Your task to perform on an android device: Open privacy settings Image 0: 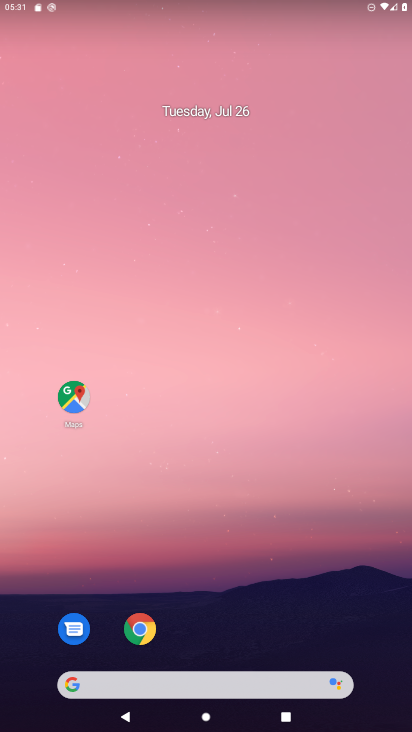
Step 0: click (143, 627)
Your task to perform on an android device: Open privacy settings Image 1: 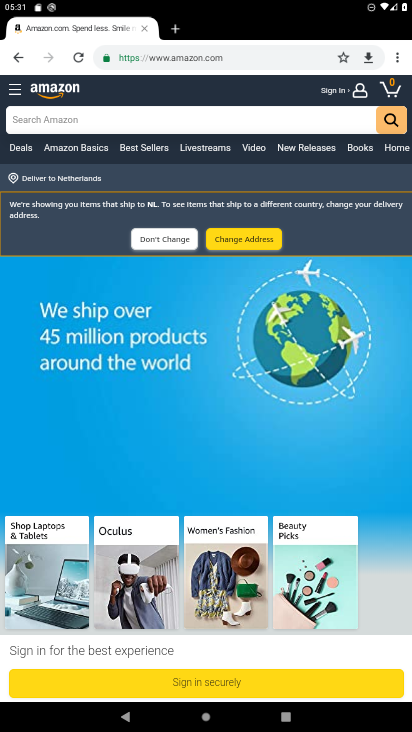
Step 1: press home button
Your task to perform on an android device: Open privacy settings Image 2: 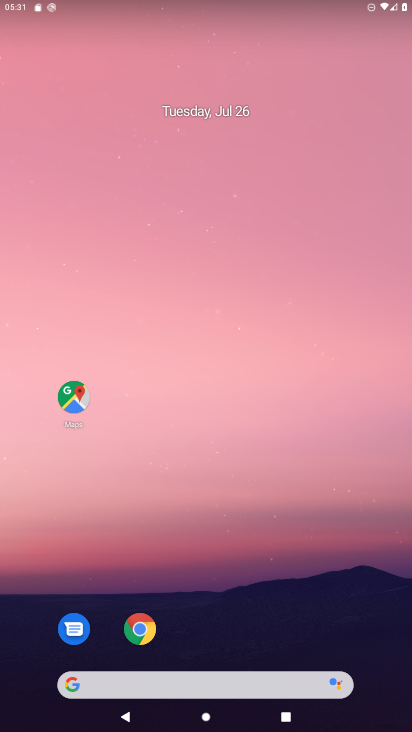
Step 2: drag from (178, 644) to (224, 5)
Your task to perform on an android device: Open privacy settings Image 3: 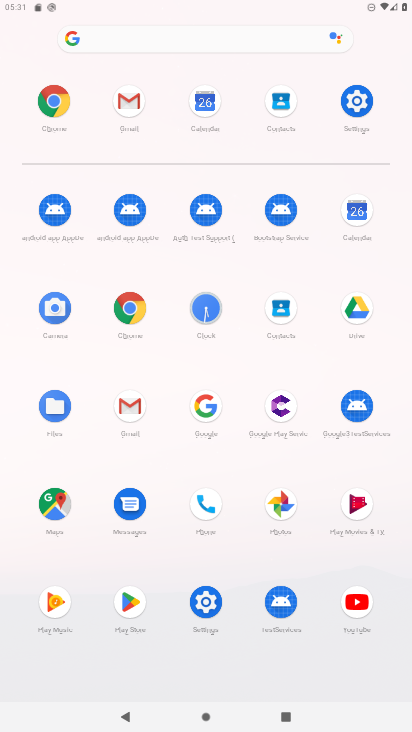
Step 3: click (353, 111)
Your task to perform on an android device: Open privacy settings Image 4: 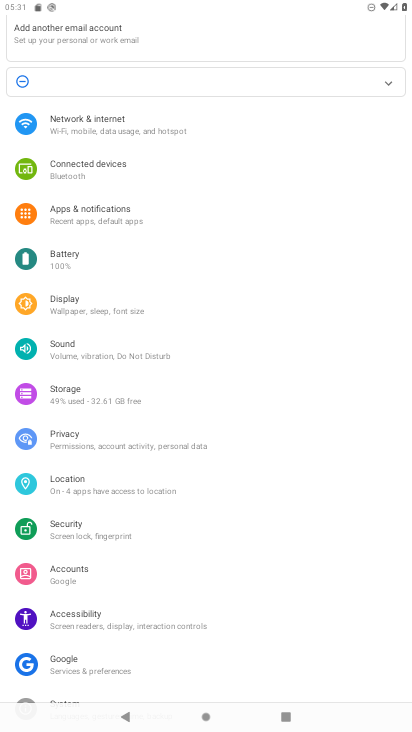
Step 4: click (64, 446)
Your task to perform on an android device: Open privacy settings Image 5: 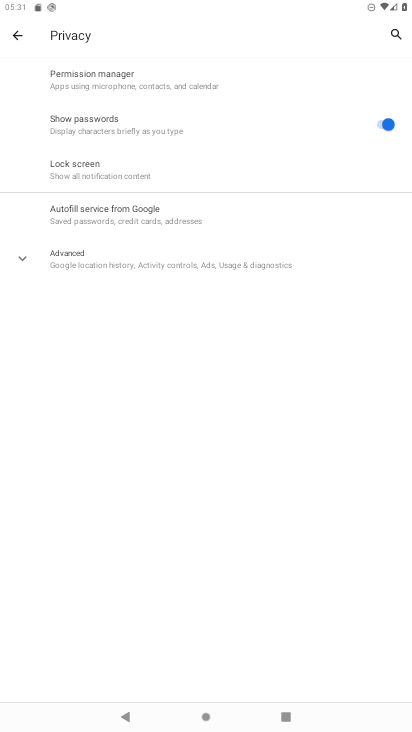
Step 5: task complete